Your task to perform on an android device: change the clock style Image 0: 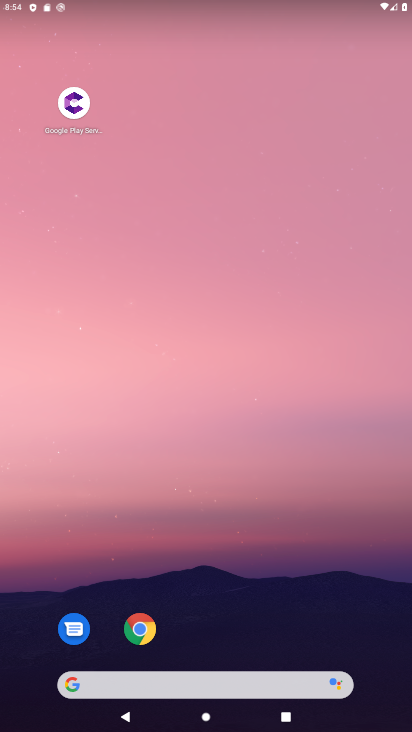
Step 0: drag from (326, 604) to (264, 94)
Your task to perform on an android device: change the clock style Image 1: 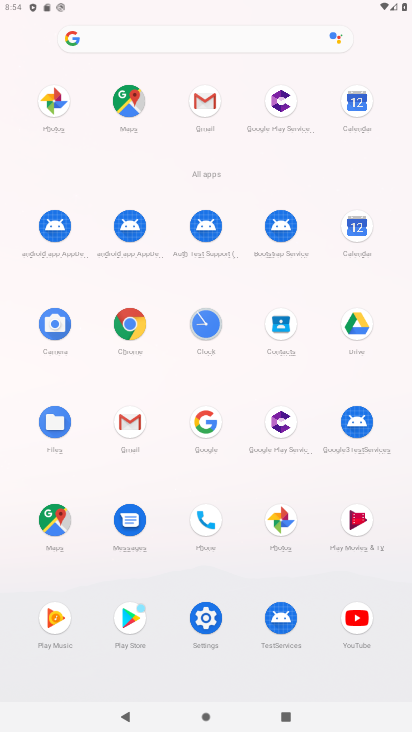
Step 1: click (200, 335)
Your task to perform on an android device: change the clock style Image 2: 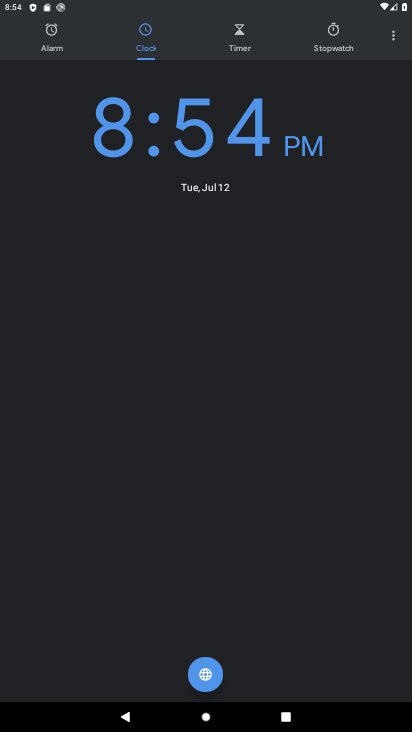
Step 2: click (370, 31)
Your task to perform on an android device: change the clock style Image 3: 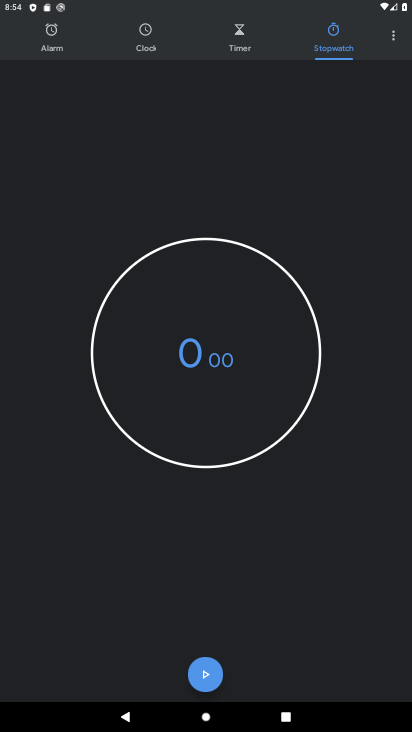
Step 3: click (399, 37)
Your task to perform on an android device: change the clock style Image 4: 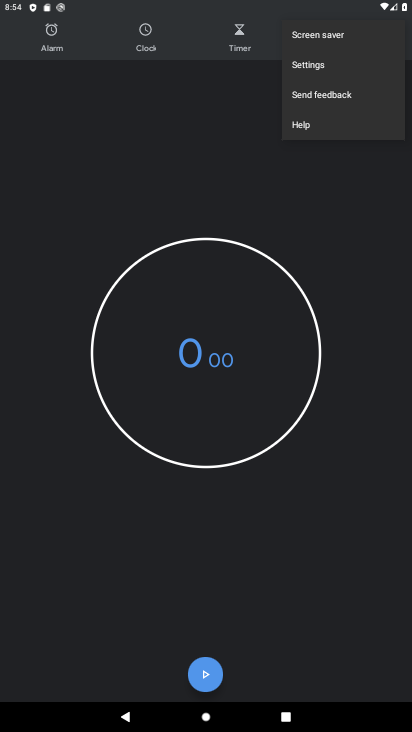
Step 4: click (308, 66)
Your task to perform on an android device: change the clock style Image 5: 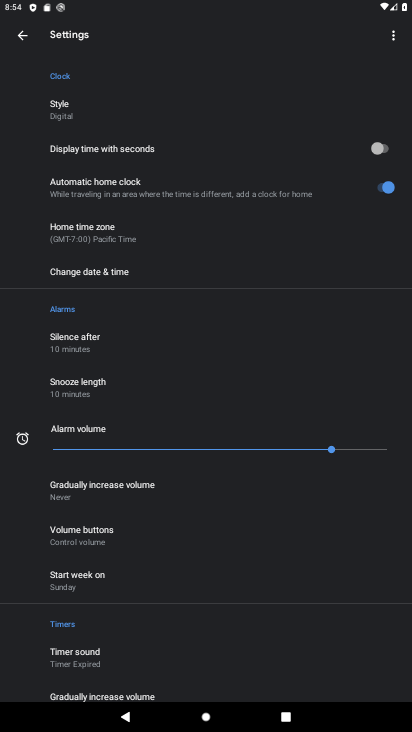
Step 5: click (91, 99)
Your task to perform on an android device: change the clock style Image 6: 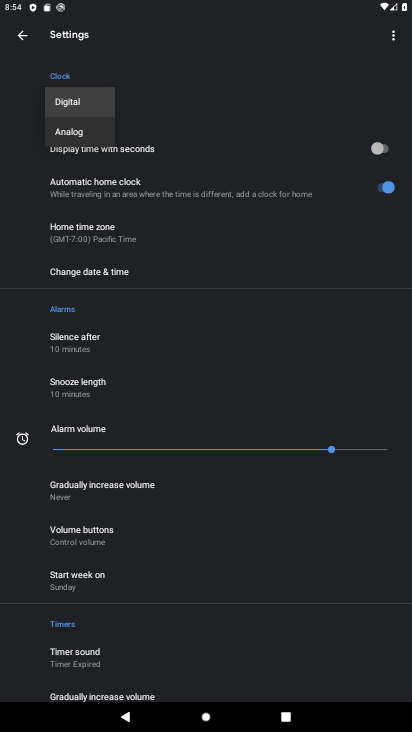
Step 6: click (86, 134)
Your task to perform on an android device: change the clock style Image 7: 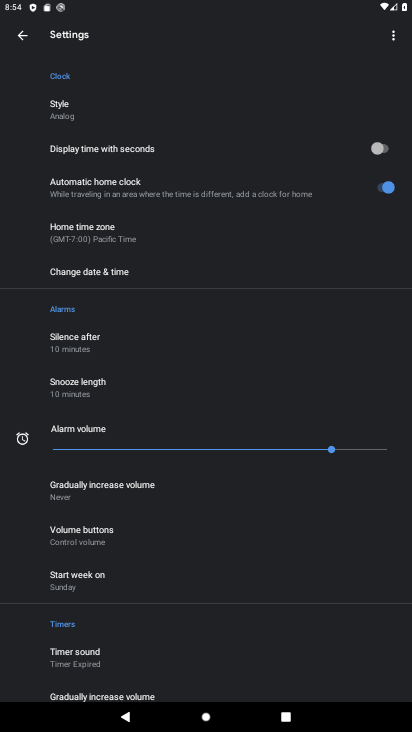
Step 7: task complete